Your task to perform on an android device: Search for sushi restaurants on Maps Image 0: 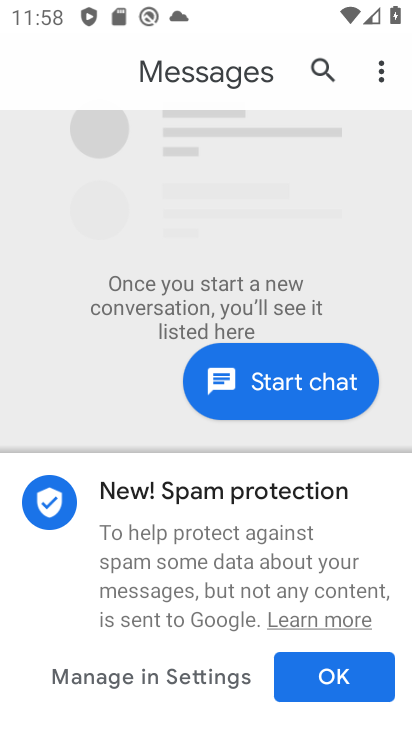
Step 0: press home button
Your task to perform on an android device: Search for sushi restaurants on Maps Image 1: 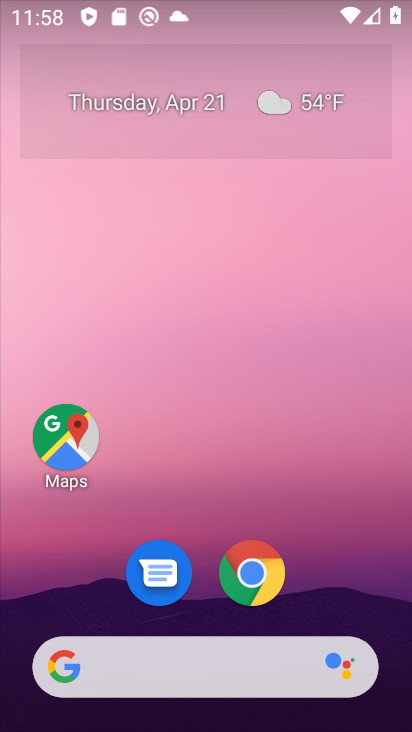
Step 1: drag from (354, 491) to (340, 96)
Your task to perform on an android device: Search for sushi restaurants on Maps Image 2: 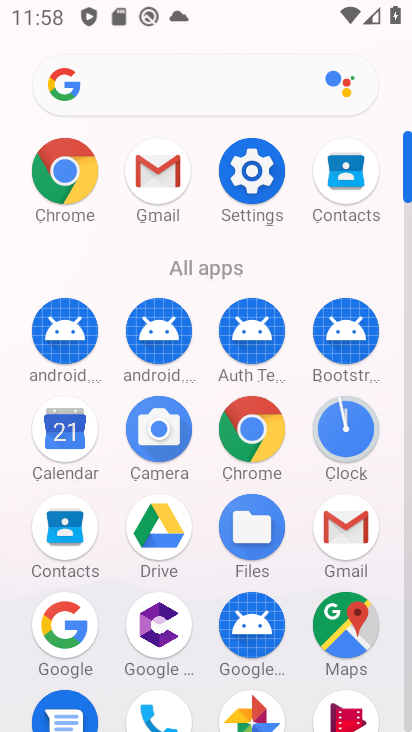
Step 2: click (352, 629)
Your task to perform on an android device: Search for sushi restaurants on Maps Image 3: 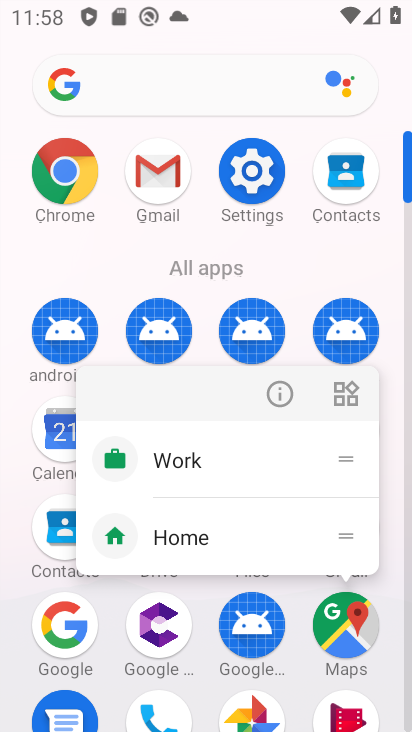
Step 3: click (344, 635)
Your task to perform on an android device: Search for sushi restaurants on Maps Image 4: 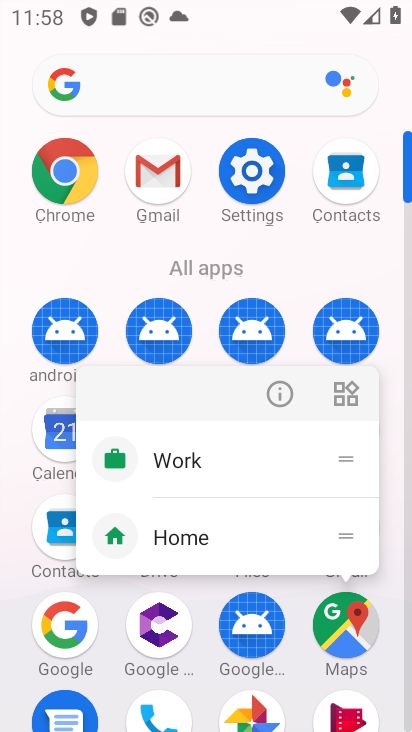
Step 4: click (344, 635)
Your task to perform on an android device: Search for sushi restaurants on Maps Image 5: 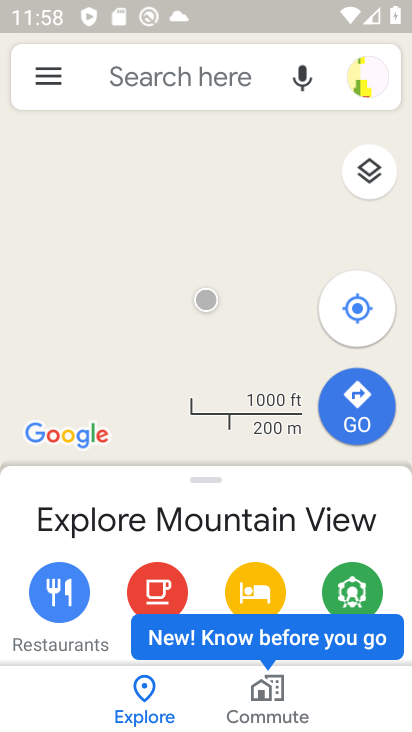
Step 5: click (162, 81)
Your task to perform on an android device: Search for sushi restaurants on Maps Image 6: 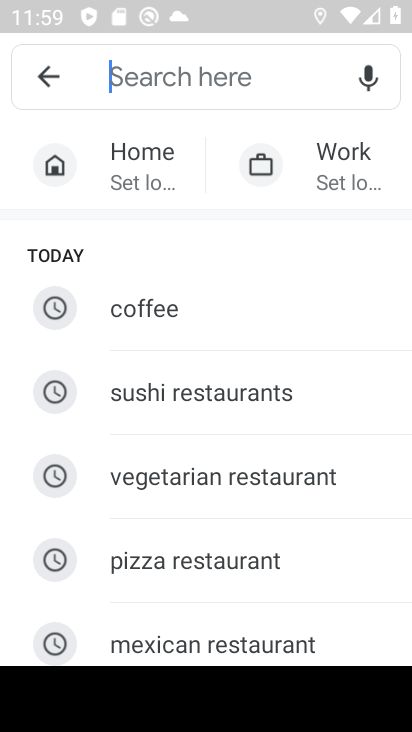
Step 6: type "sushi restaurants"
Your task to perform on an android device: Search for sushi restaurants on Maps Image 7: 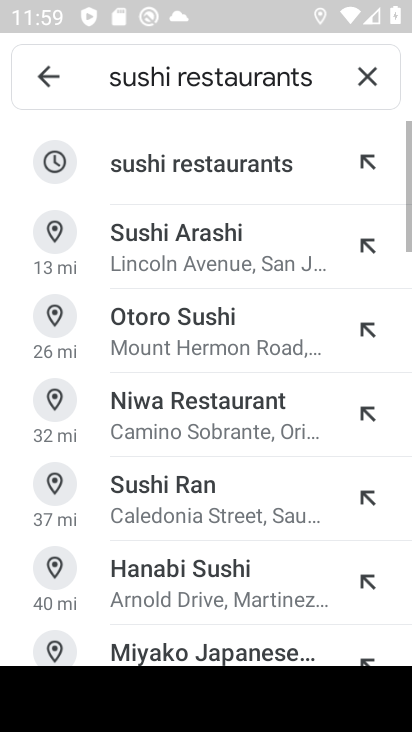
Step 7: click (176, 168)
Your task to perform on an android device: Search for sushi restaurants on Maps Image 8: 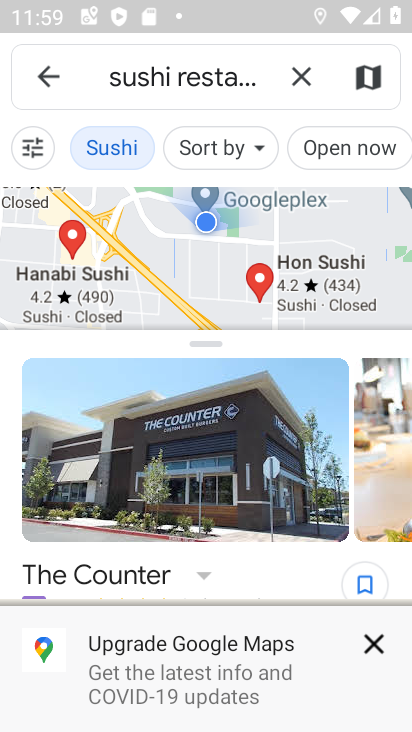
Step 8: task complete